Your task to perform on an android device: check google app version Image 0: 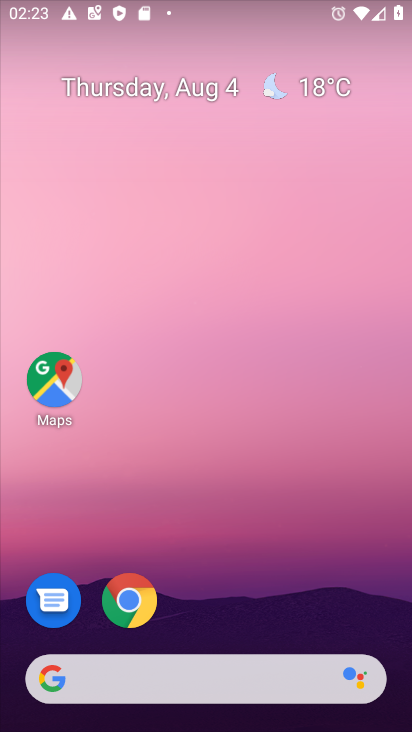
Step 0: press home button
Your task to perform on an android device: check google app version Image 1: 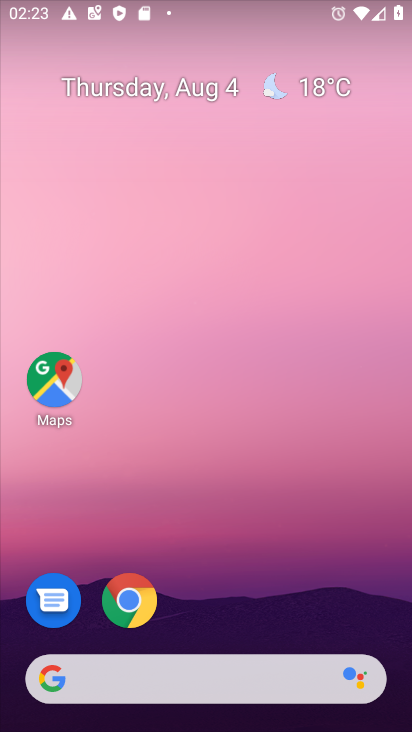
Step 1: drag from (178, 678) to (329, 64)
Your task to perform on an android device: check google app version Image 2: 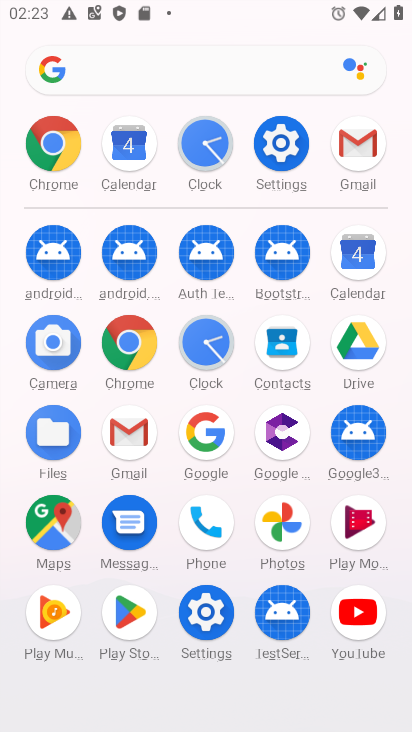
Step 2: click (207, 434)
Your task to perform on an android device: check google app version Image 3: 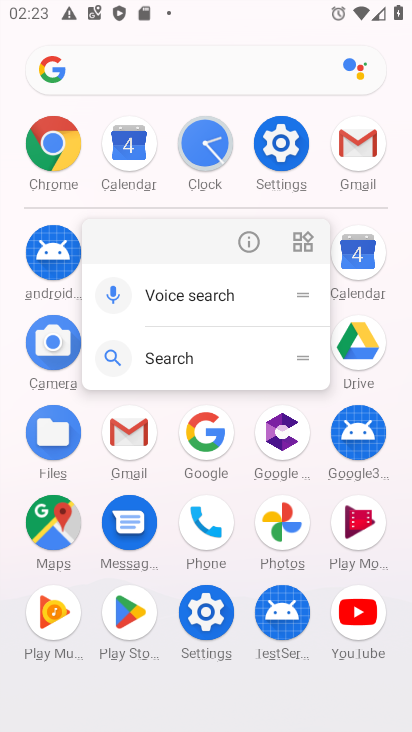
Step 3: click (248, 234)
Your task to perform on an android device: check google app version Image 4: 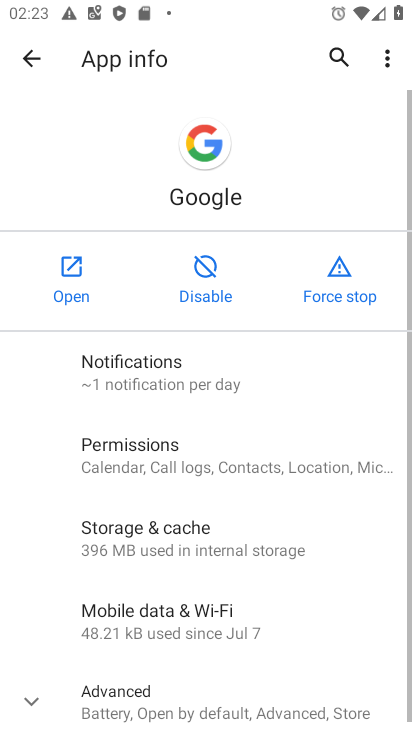
Step 4: drag from (229, 670) to (304, 28)
Your task to perform on an android device: check google app version Image 5: 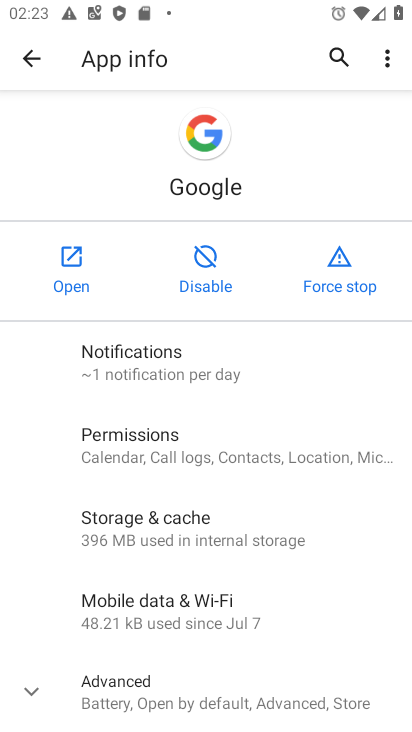
Step 5: click (114, 689)
Your task to perform on an android device: check google app version Image 6: 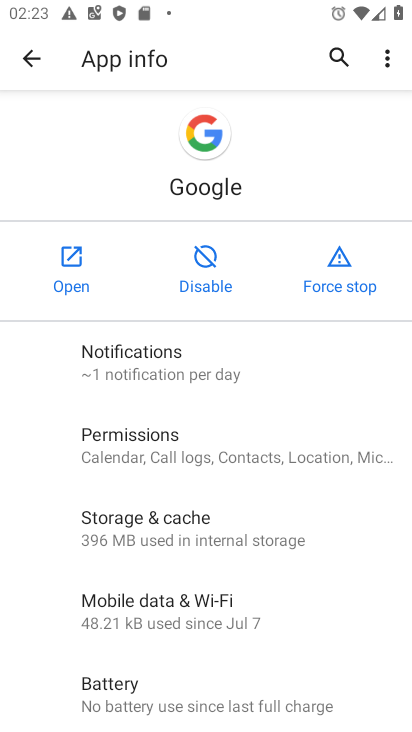
Step 6: task complete